Your task to perform on an android device: turn off location history Image 0: 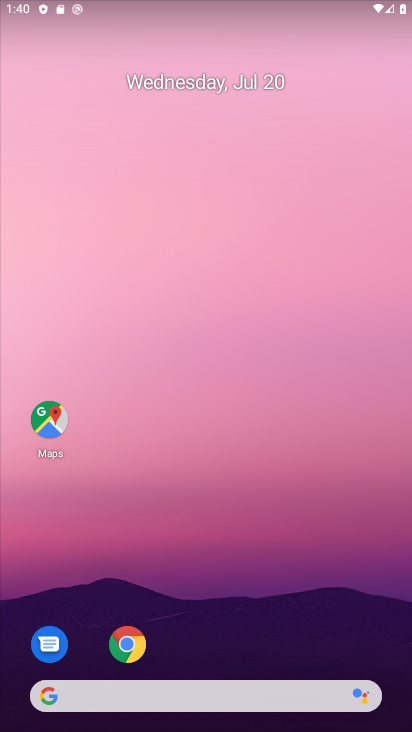
Step 0: drag from (250, 658) to (257, 298)
Your task to perform on an android device: turn off location history Image 1: 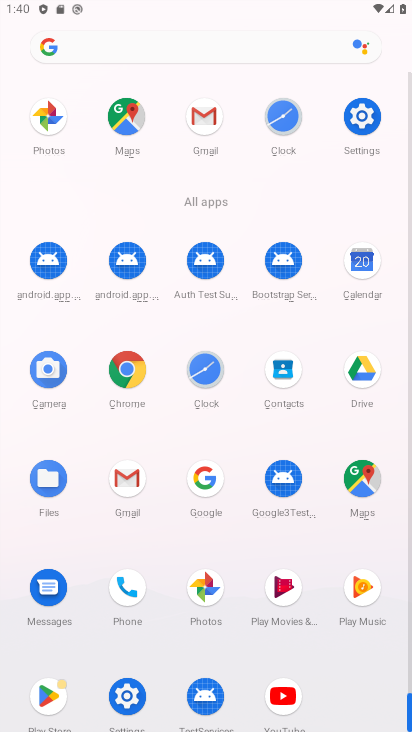
Step 1: click (126, 692)
Your task to perform on an android device: turn off location history Image 2: 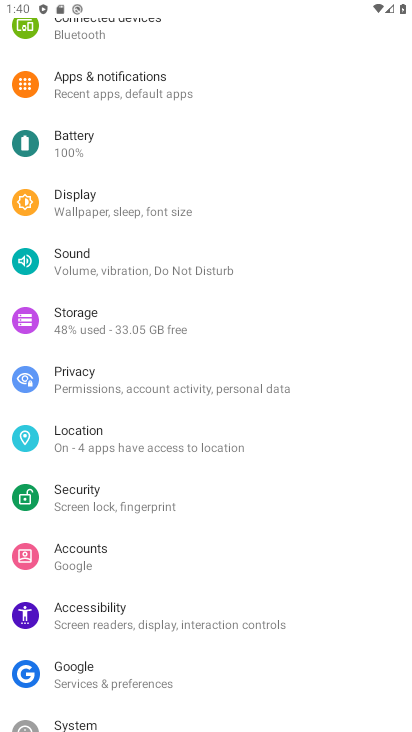
Step 2: click (113, 441)
Your task to perform on an android device: turn off location history Image 3: 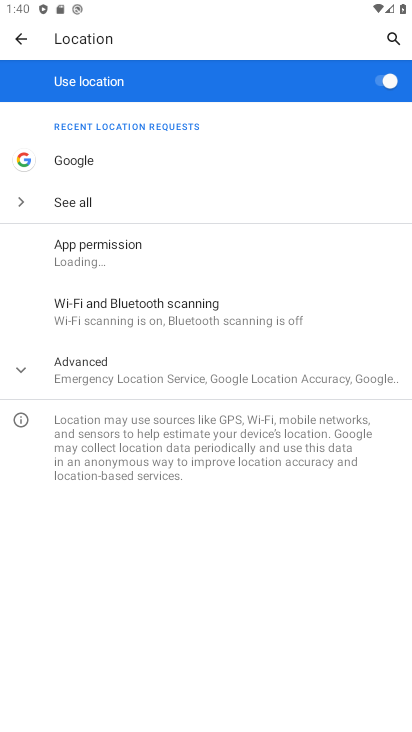
Step 3: click (122, 374)
Your task to perform on an android device: turn off location history Image 4: 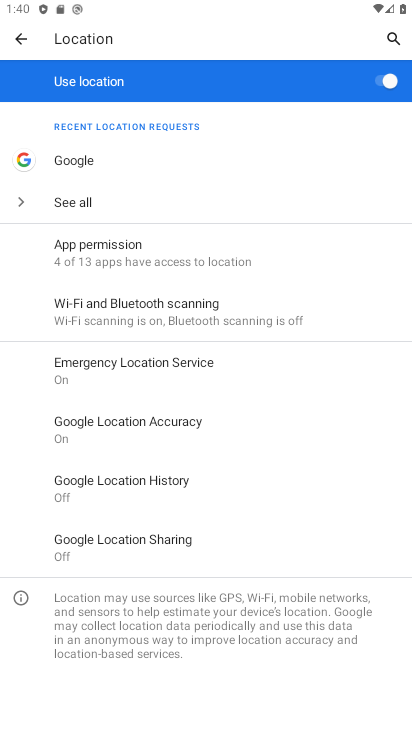
Step 4: click (185, 489)
Your task to perform on an android device: turn off location history Image 5: 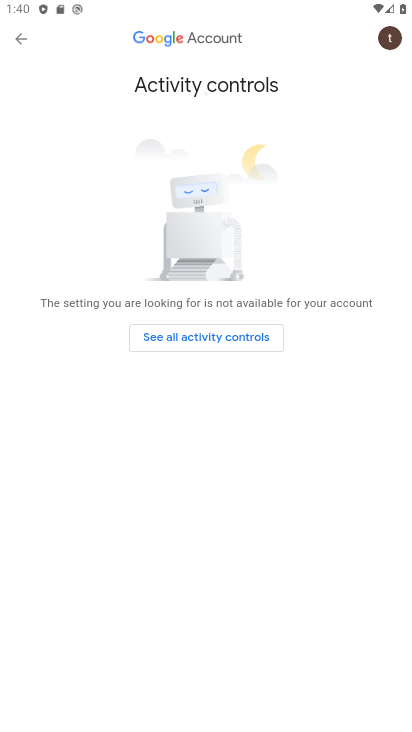
Step 5: task complete